Your task to perform on an android device: star an email in the gmail app Image 0: 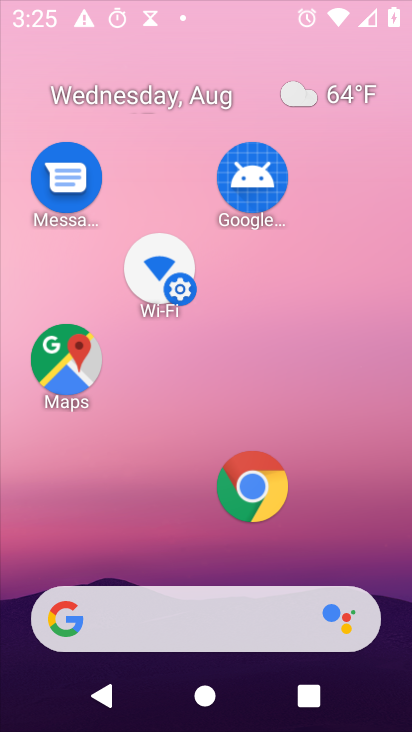
Step 0: press home button
Your task to perform on an android device: star an email in the gmail app Image 1: 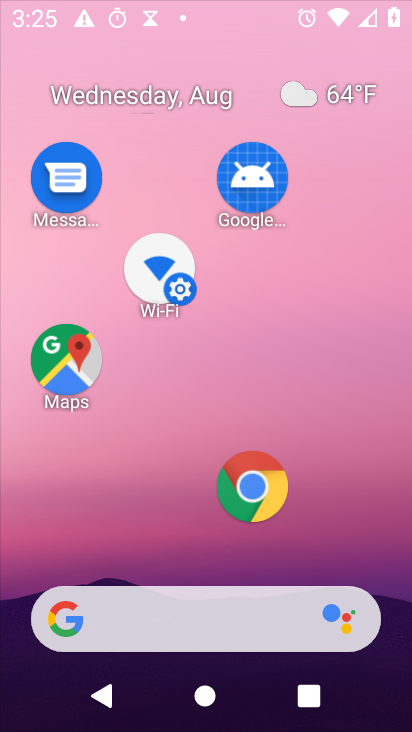
Step 1: click (390, 69)
Your task to perform on an android device: star an email in the gmail app Image 2: 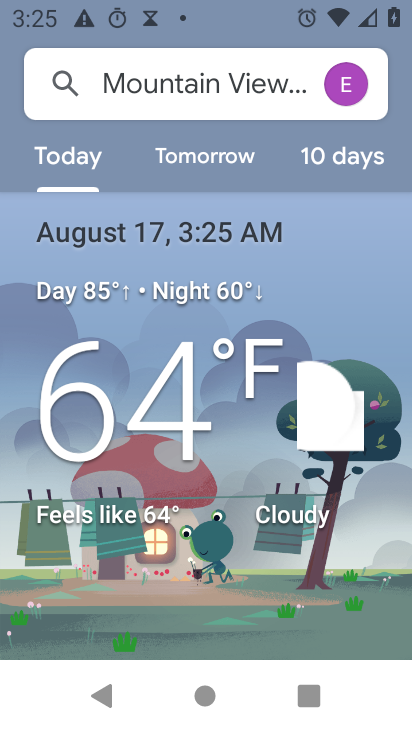
Step 2: press home button
Your task to perform on an android device: star an email in the gmail app Image 3: 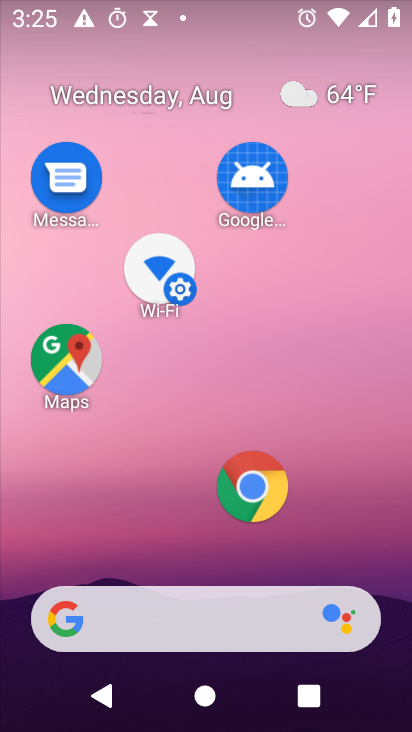
Step 3: drag from (307, 571) to (158, 15)
Your task to perform on an android device: star an email in the gmail app Image 4: 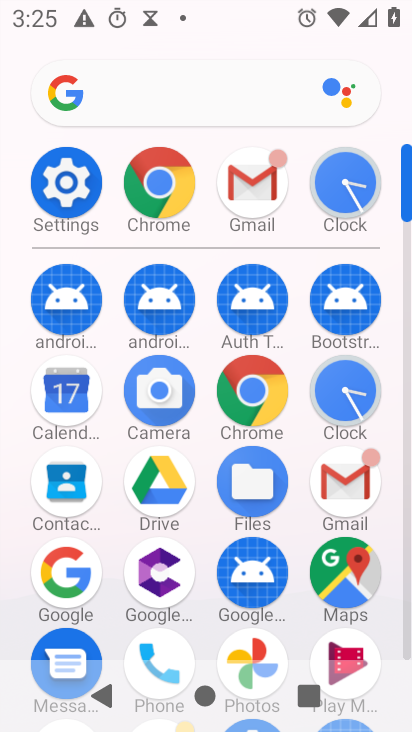
Step 4: click (352, 480)
Your task to perform on an android device: star an email in the gmail app Image 5: 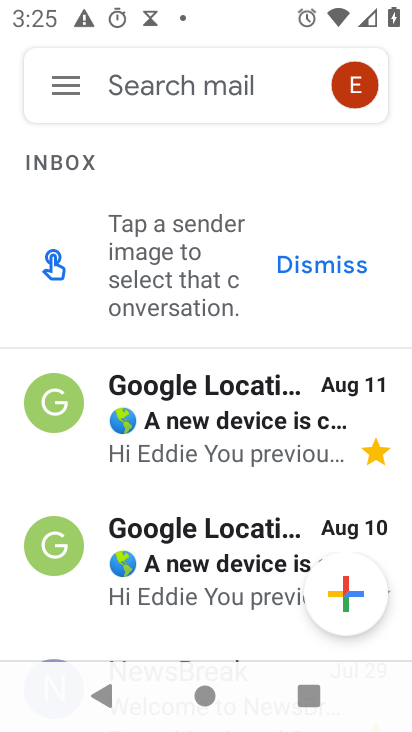
Step 5: click (184, 582)
Your task to perform on an android device: star an email in the gmail app Image 6: 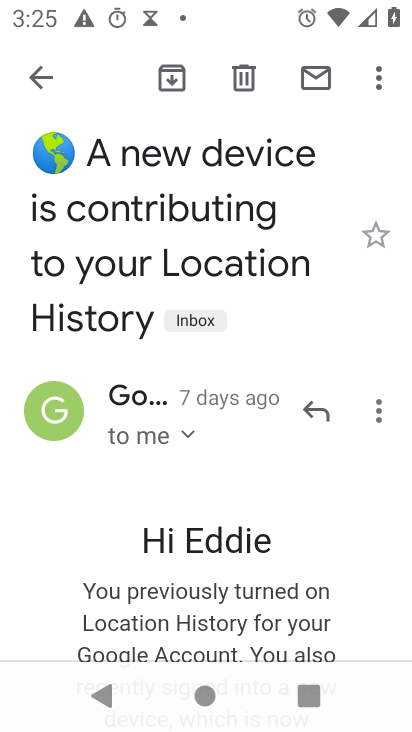
Step 6: click (371, 237)
Your task to perform on an android device: star an email in the gmail app Image 7: 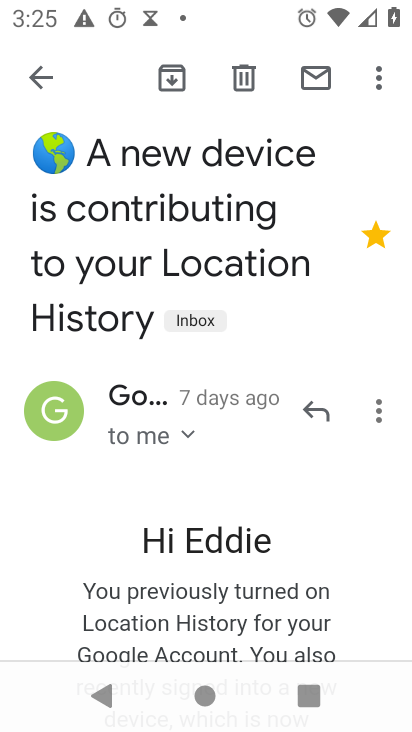
Step 7: task complete